Your task to perform on an android device: Open notification settings Image 0: 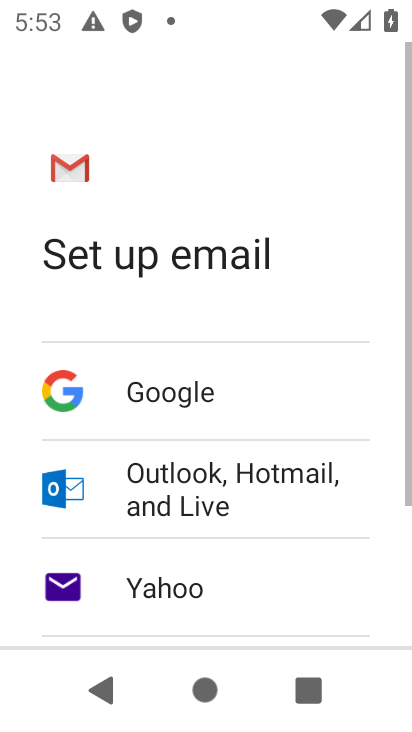
Step 0: press home button
Your task to perform on an android device: Open notification settings Image 1: 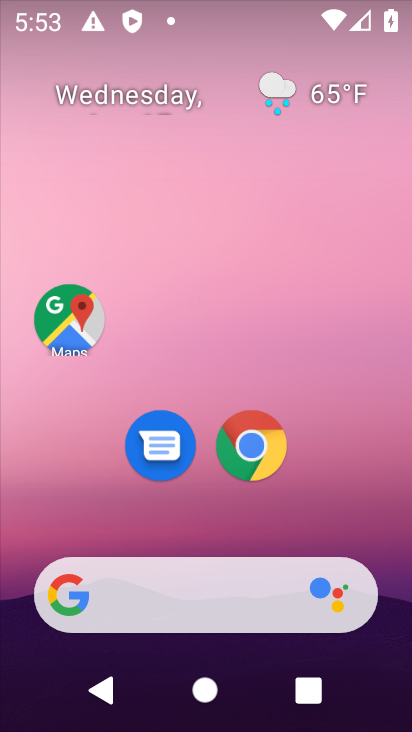
Step 1: drag from (204, 505) to (205, 156)
Your task to perform on an android device: Open notification settings Image 2: 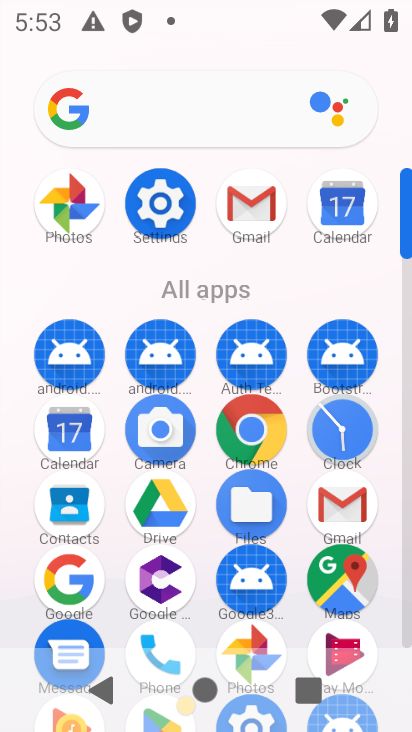
Step 2: click (180, 205)
Your task to perform on an android device: Open notification settings Image 3: 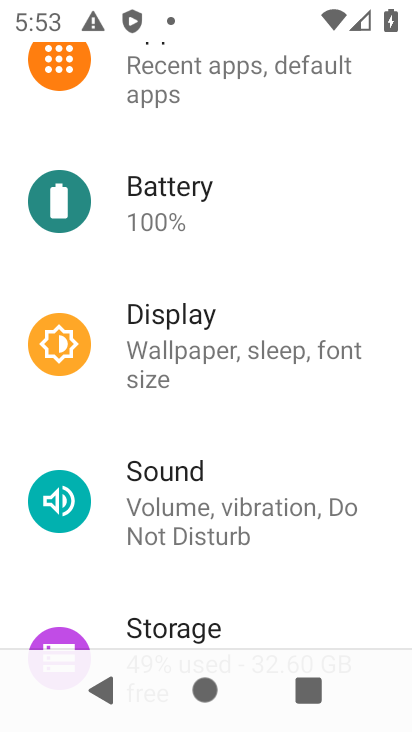
Step 3: drag from (179, 206) to (222, 581)
Your task to perform on an android device: Open notification settings Image 4: 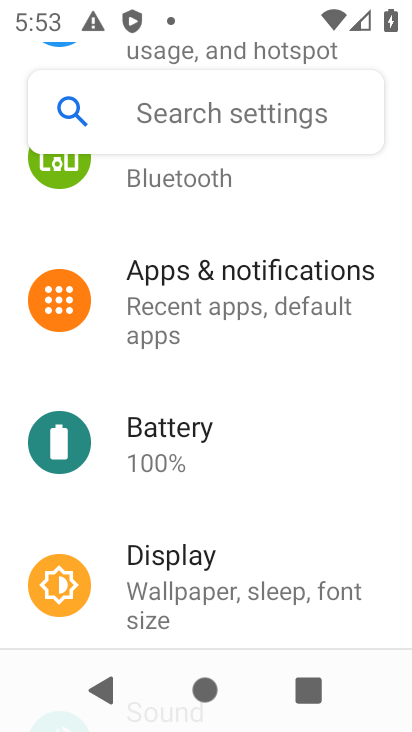
Step 4: click (220, 314)
Your task to perform on an android device: Open notification settings Image 5: 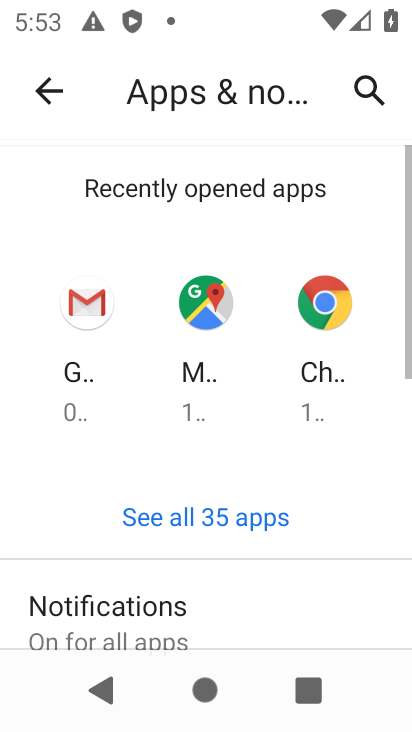
Step 5: drag from (210, 613) to (228, 314)
Your task to perform on an android device: Open notification settings Image 6: 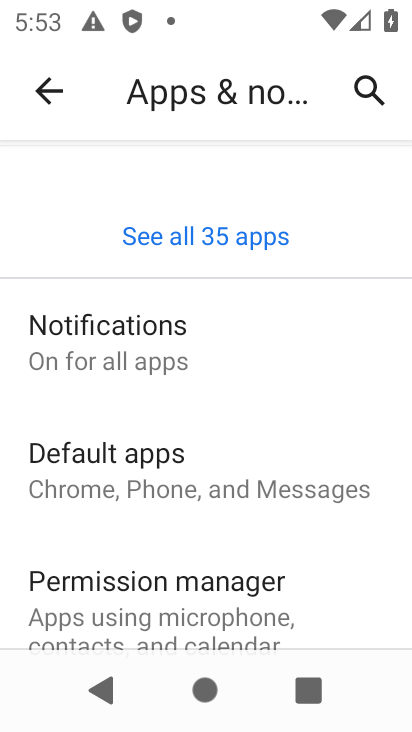
Step 6: click (167, 348)
Your task to perform on an android device: Open notification settings Image 7: 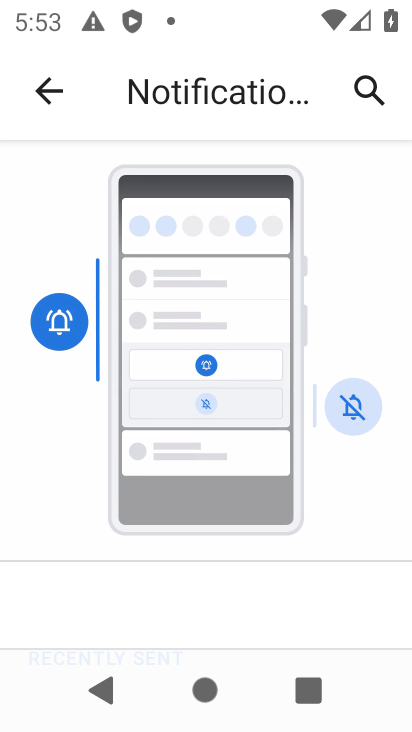
Step 7: task complete